Your task to perform on an android device: Go to Yahoo.com Image 0: 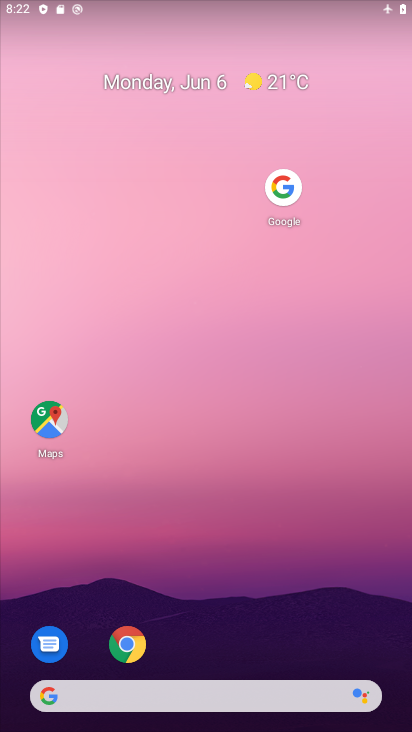
Step 0: click (135, 649)
Your task to perform on an android device: Go to Yahoo.com Image 1: 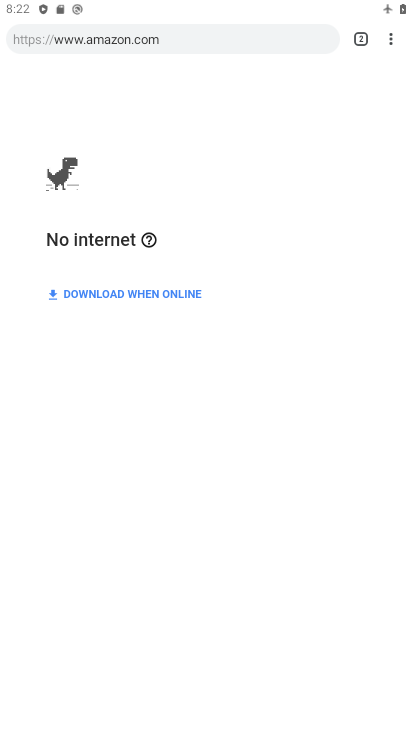
Step 1: click (361, 40)
Your task to perform on an android device: Go to Yahoo.com Image 2: 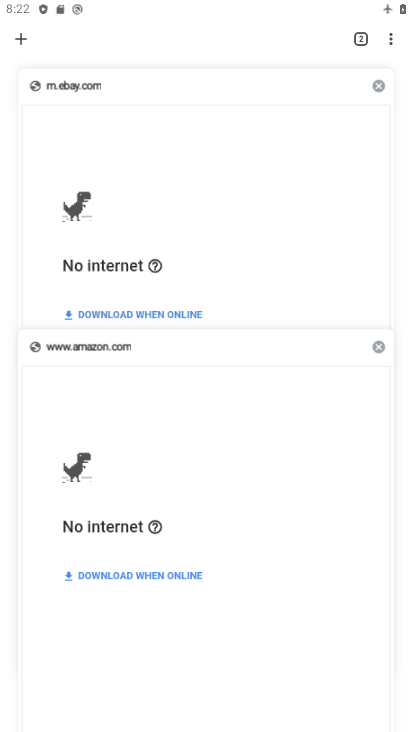
Step 2: click (32, 43)
Your task to perform on an android device: Go to Yahoo.com Image 3: 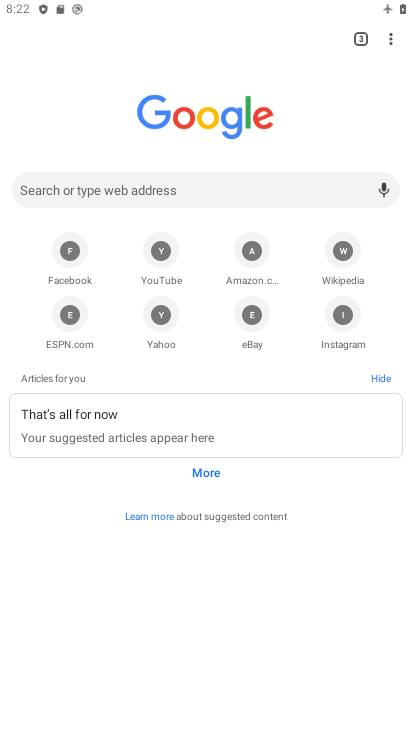
Step 3: click (161, 327)
Your task to perform on an android device: Go to Yahoo.com Image 4: 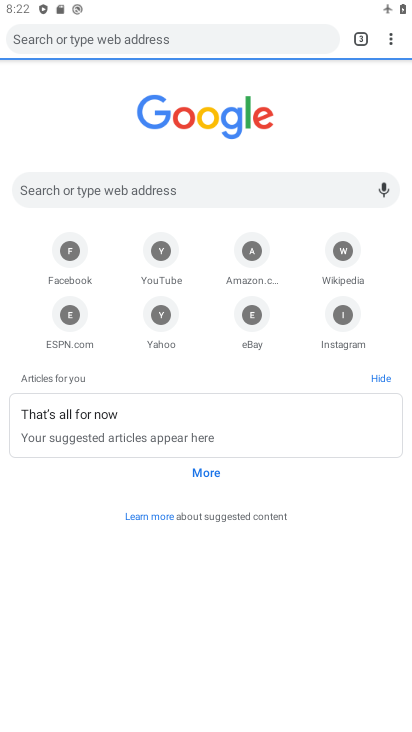
Step 4: task complete